Your task to perform on an android device: What's on my calendar today? Image 0: 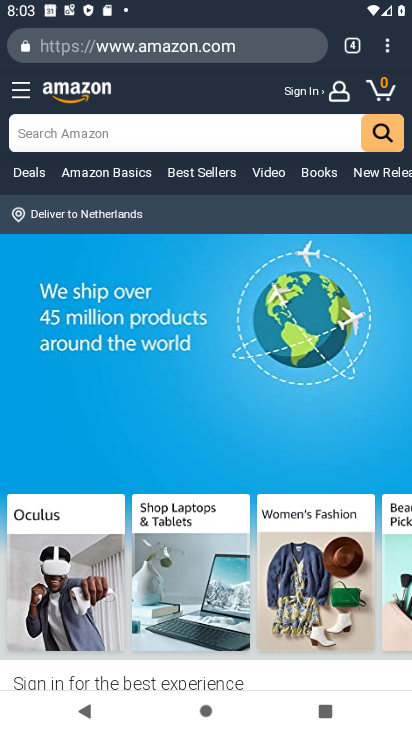
Step 0: press home button
Your task to perform on an android device: What's on my calendar today? Image 1: 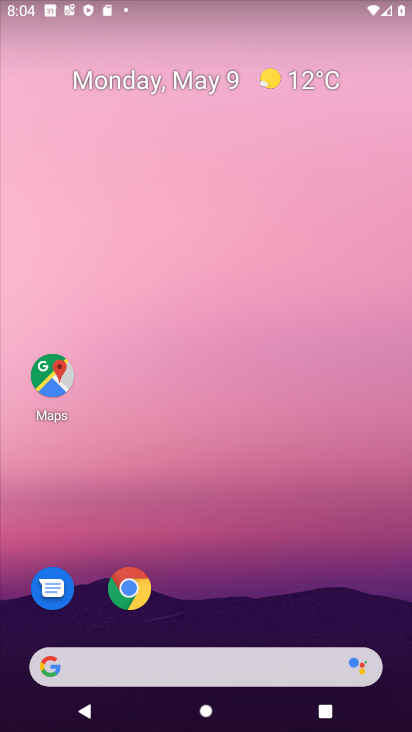
Step 1: drag from (129, 669) to (320, 42)
Your task to perform on an android device: What's on my calendar today? Image 2: 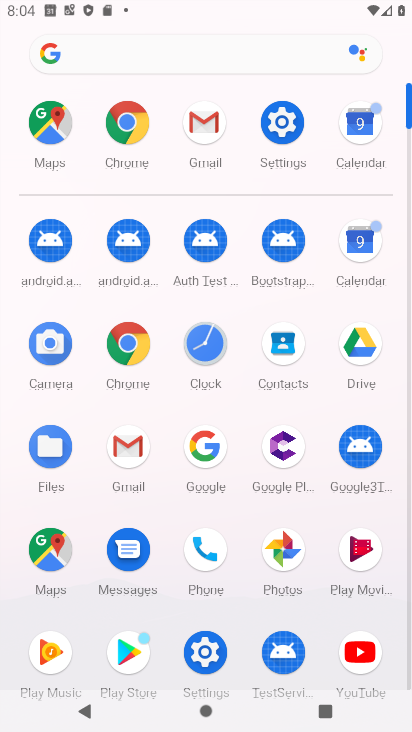
Step 2: click (365, 126)
Your task to perform on an android device: What's on my calendar today? Image 3: 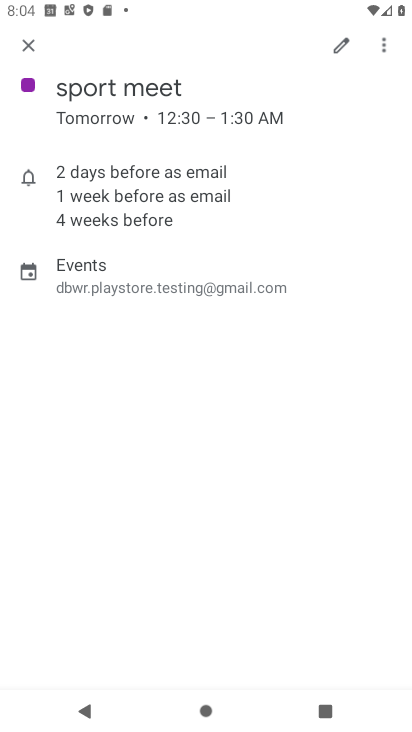
Step 3: click (29, 46)
Your task to perform on an android device: What's on my calendar today? Image 4: 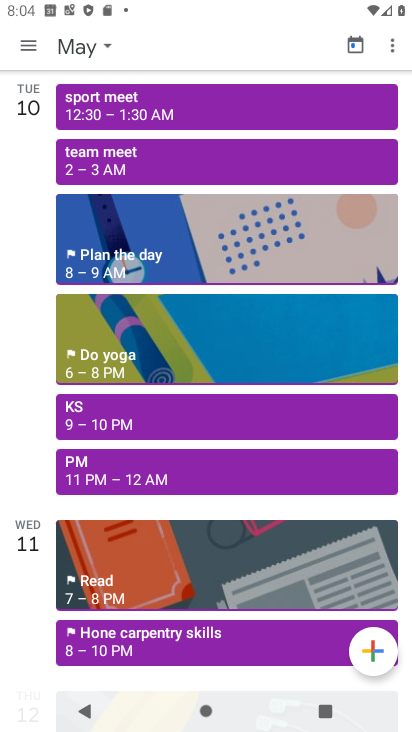
Step 4: click (76, 46)
Your task to perform on an android device: What's on my calendar today? Image 5: 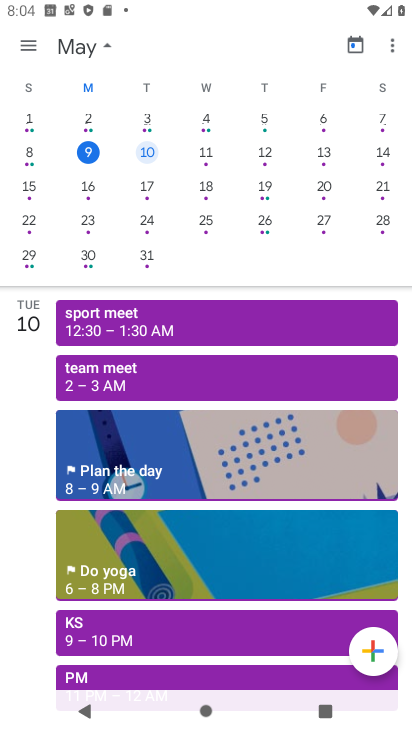
Step 5: click (87, 154)
Your task to perform on an android device: What's on my calendar today? Image 6: 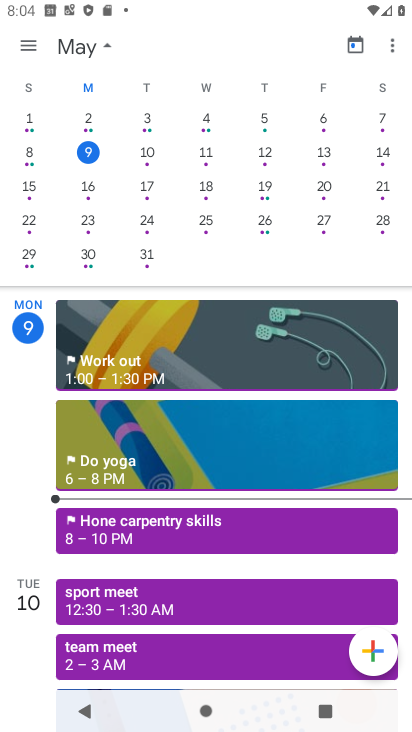
Step 6: click (21, 48)
Your task to perform on an android device: What's on my calendar today? Image 7: 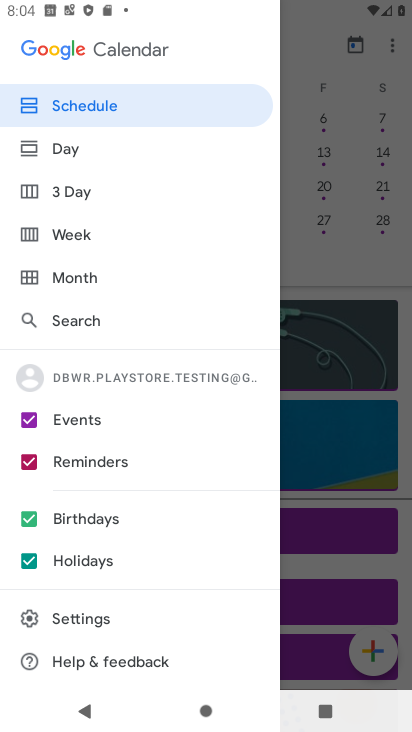
Step 7: click (89, 103)
Your task to perform on an android device: What's on my calendar today? Image 8: 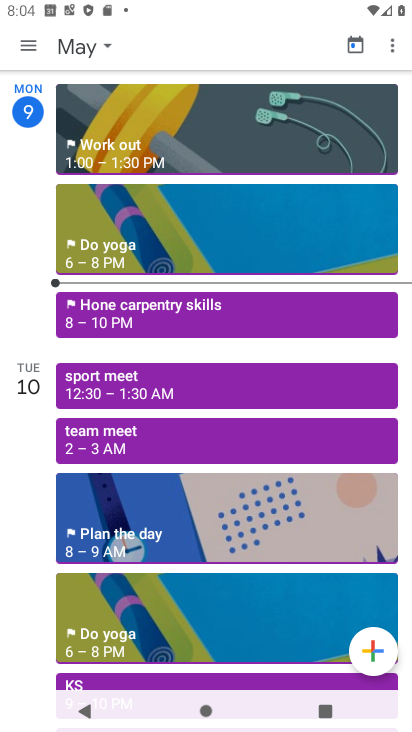
Step 8: click (31, 110)
Your task to perform on an android device: What's on my calendar today? Image 9: 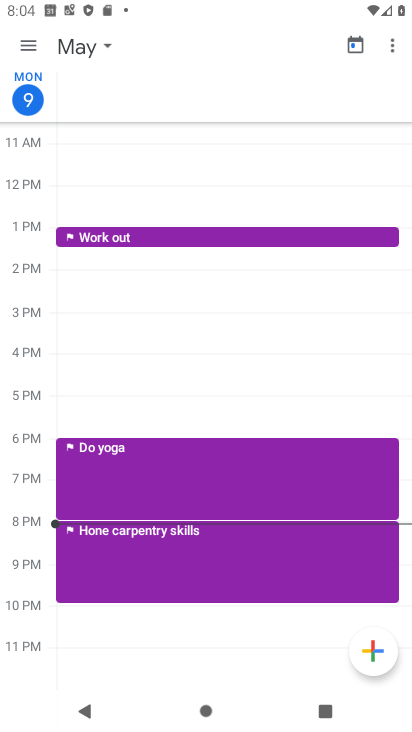
Step 9: task complete